Your task to perform on an android device: Go to eBay Image 0: 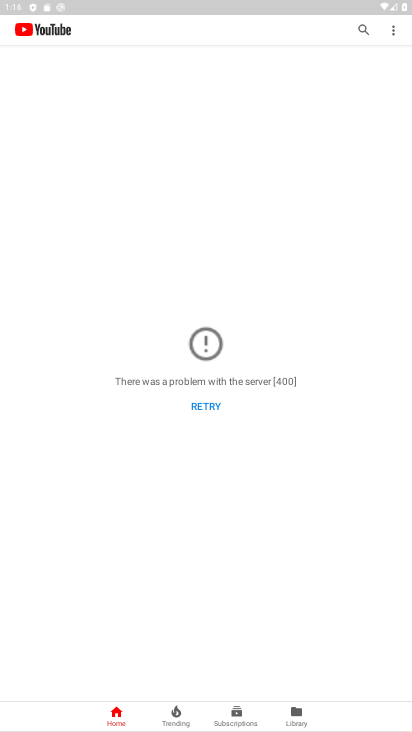
Step 0: press home button
Your task to perform on an android device: Go to eBay Image 1: 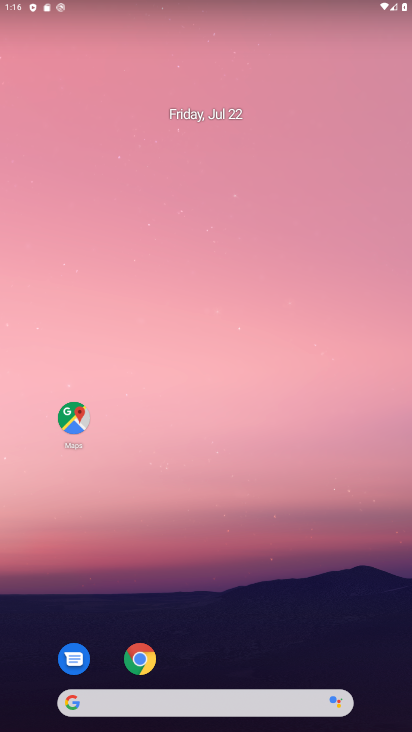
Step 1: click (146, 653)
Your task to perform on an android device: Go to eBay Image 2: 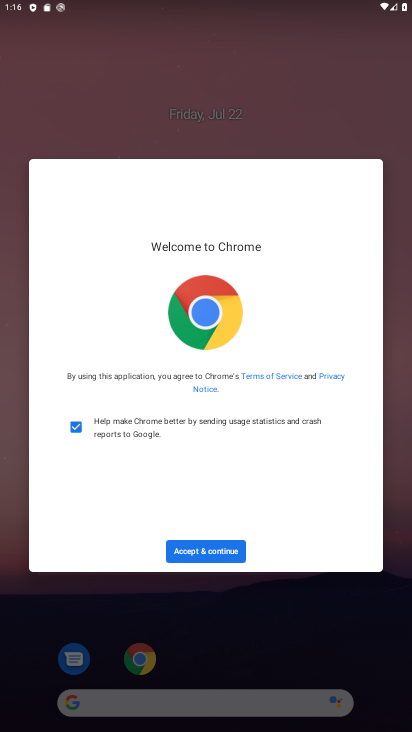
Step 2: click (232, 542)
Your task to perform on an android device: Go to eBay Image 3: 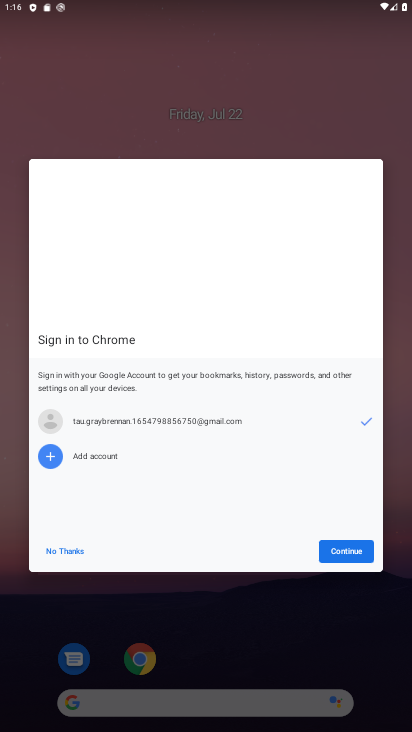
Step 3: click (232, 542)
Your task to perform on an android device: Go to eBay Image 4: 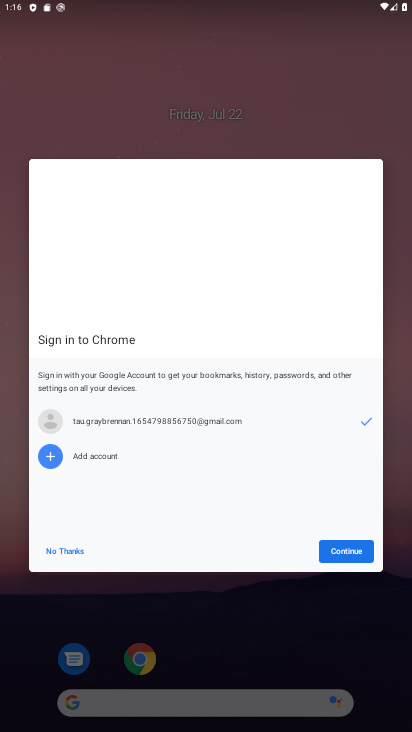
Step 4: click (343, 551)
Your task to perform on an android device: Go to eBay Image 5: 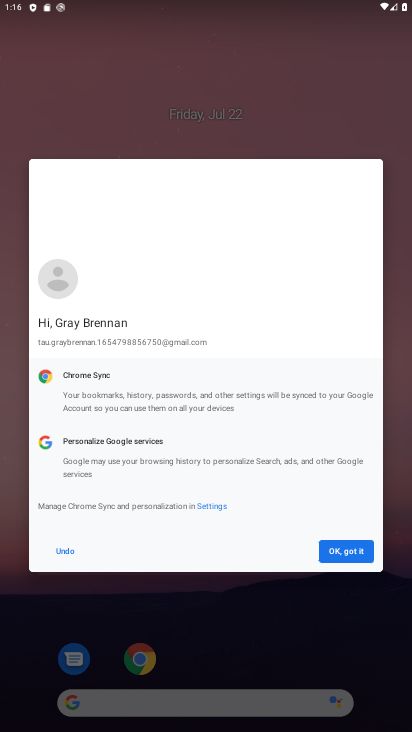
Step 5: click (343, 551)
Your task to perform on an android device: Go to eBay Image 6: 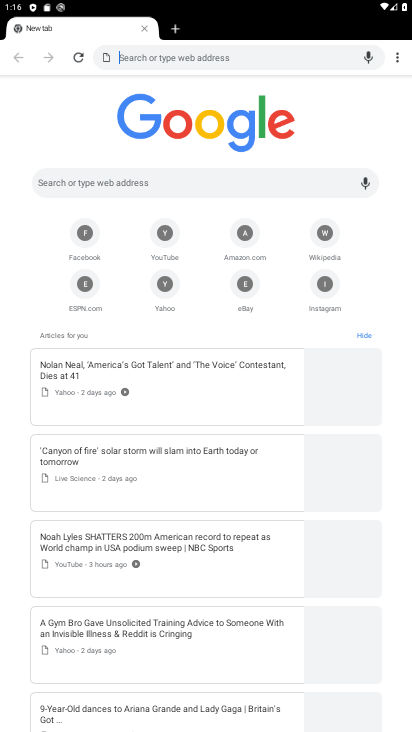
Step 6: click (244, 287)
Your task to perform on an android device: Go to eBay Image 7: 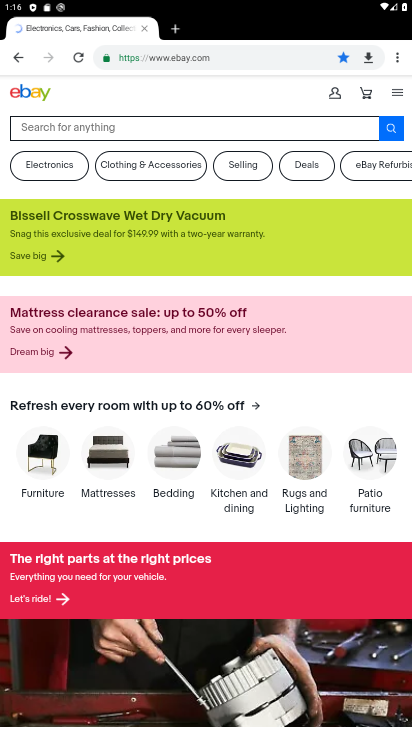
Step 7: task complete